Your task to perform on an android device: turn off notifications settings in the gmail app Image 0: 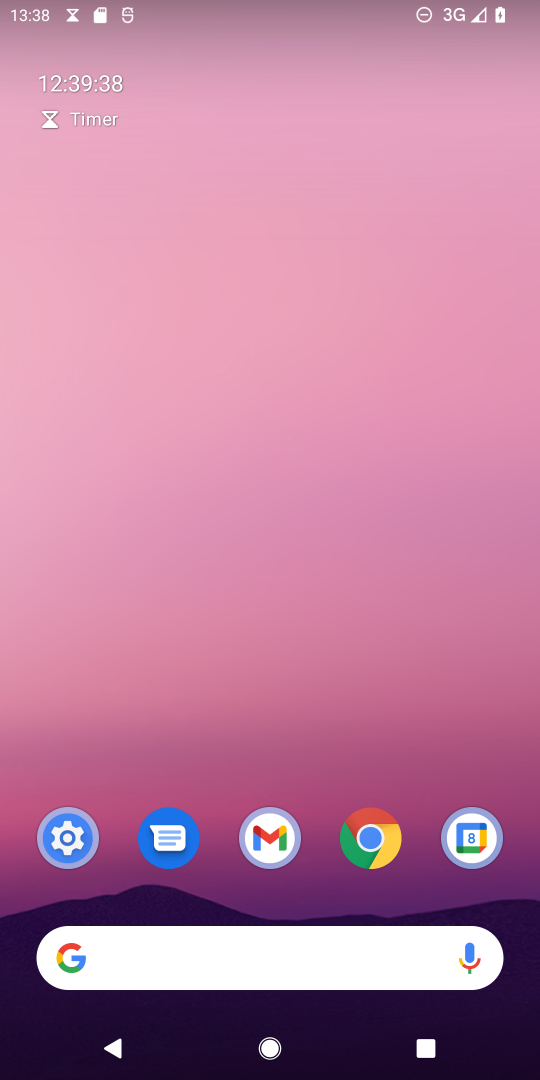
Step 0: click (280, 840)
Your task to perform on an android device: turn off notifications settings in the gmail app Image 1: 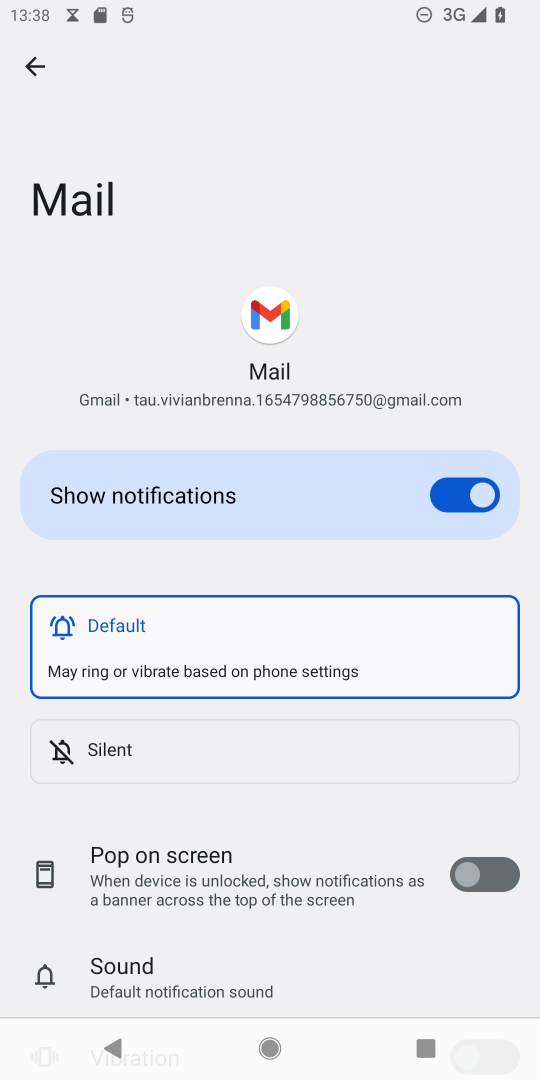
Step 1: click (482, 498)
Your task to perform on an android device: turn off notifications settings in the gmail app Image 2: 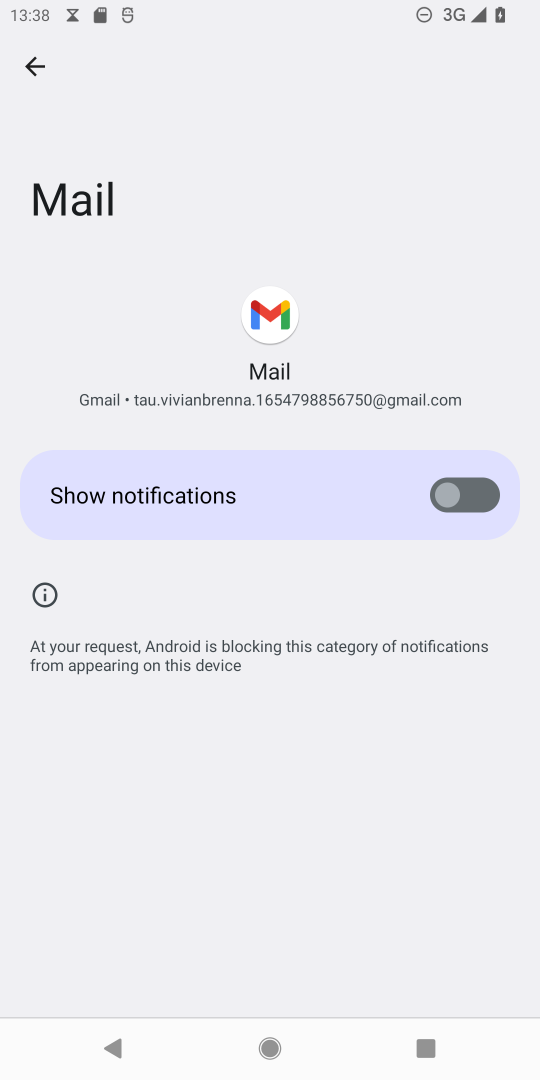
Step 2: task complete